Your task to perform on an android device: turn off translation in the chrome app Image 0: 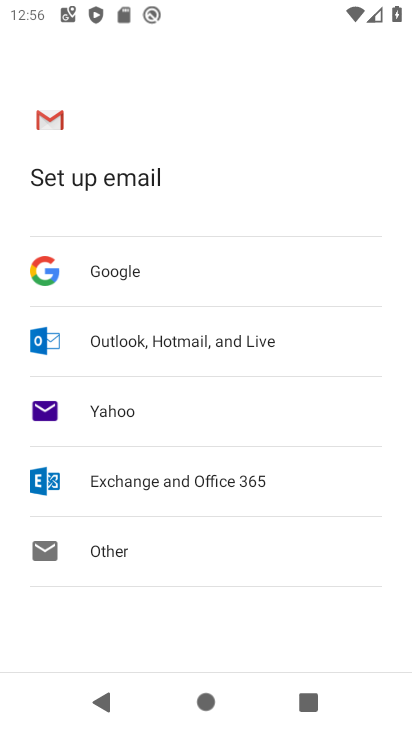
Step 0: press home button
Your task to perform on an android device: turn off translation in the chrome app Image 1: 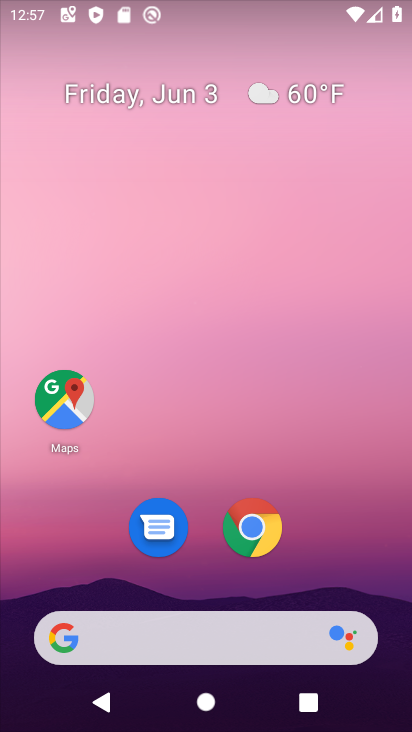
Step 1: click (252, 528)
Your task to perform on an android device: turn off translation in the chrome app Image 2: 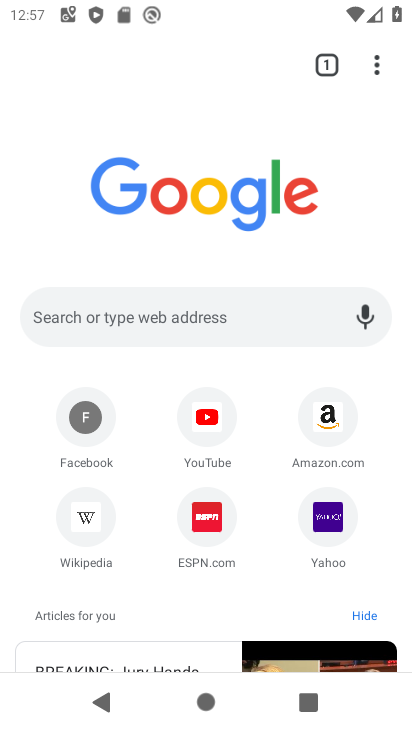
Step 2: click (376, 62)
Your task to perform on an android device: turn off translation in the chrome app Image 3: 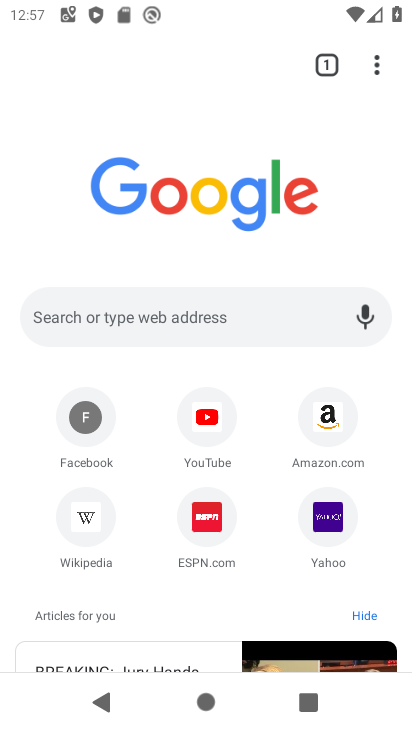
Step 3: click (369, 77)
Your task to perform on an android device: turn off translation in the chrome app Image 4: 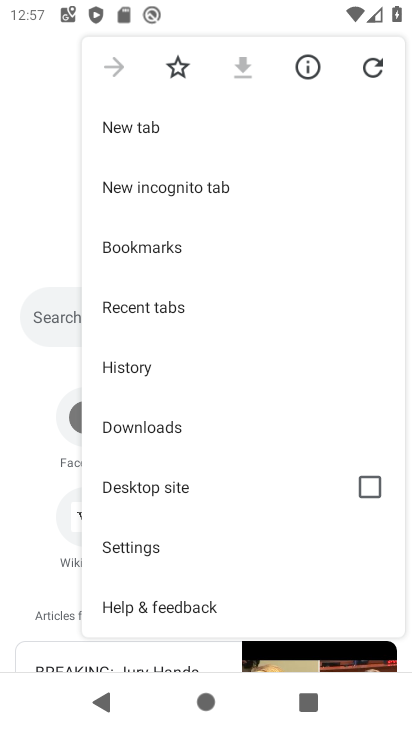
Step 4: click (152, 547)
Your task to perform on an android device: turn off translation in the chrome app Image 5: 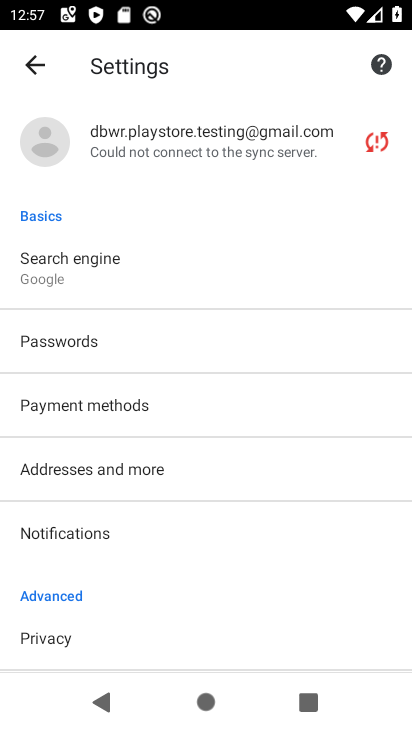
Step 5: drag from (133, 645) to (159, 176)
Your task to perform on an android device: turn off translation in the chrome app Image 6: 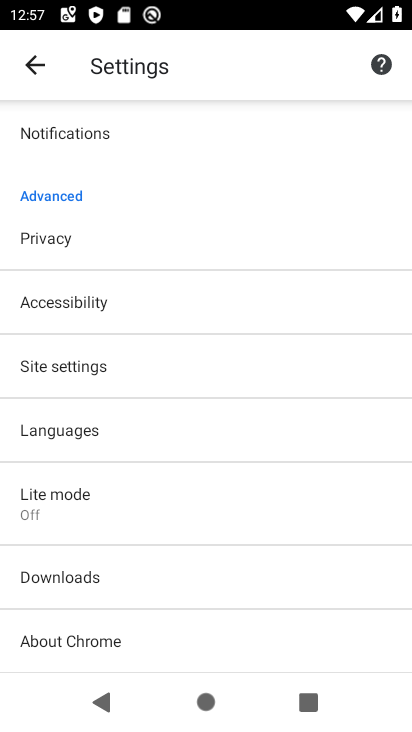
Step 6: click (90, 426)
Your task to perform on an android device: turn off translation in the chrome app Image 7: 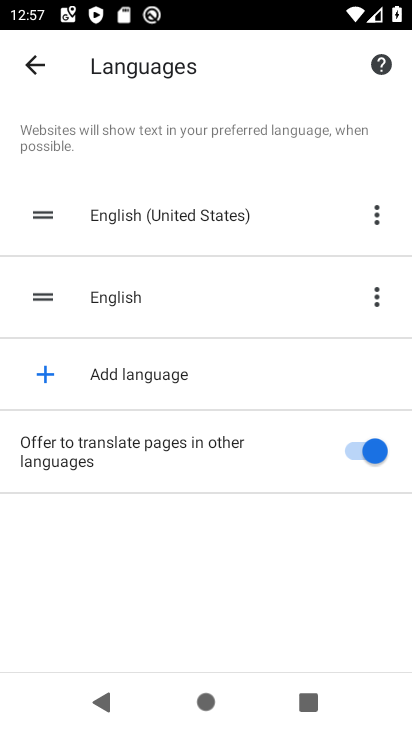
Step 7: click (360, 442)
Your task to perform on an android device: turn off translation in the chrome app Image 8: 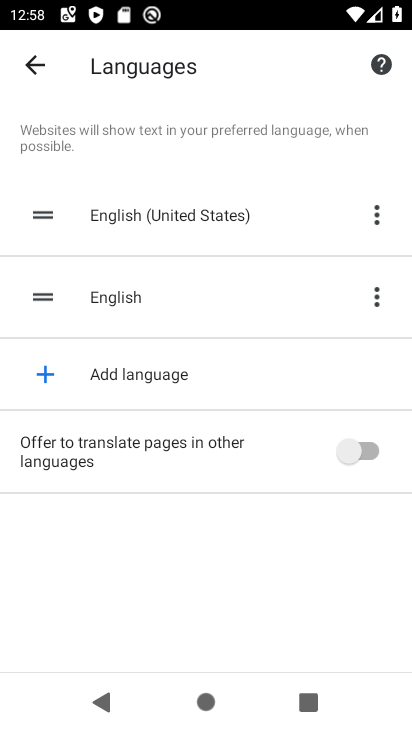
Step 8: task complete